Your task to perform on an android device: find which apps use the phone's location Image 0: 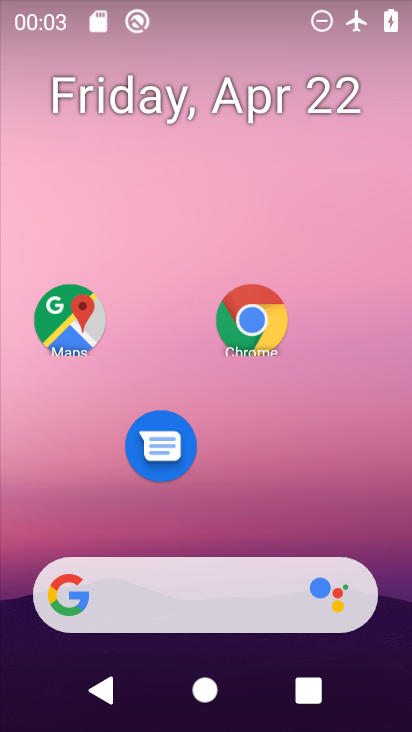
Step 0: drag from (218, 411) to (218, 140)
Your task to perform on an android device: find which apps use the phone's location Image 1: 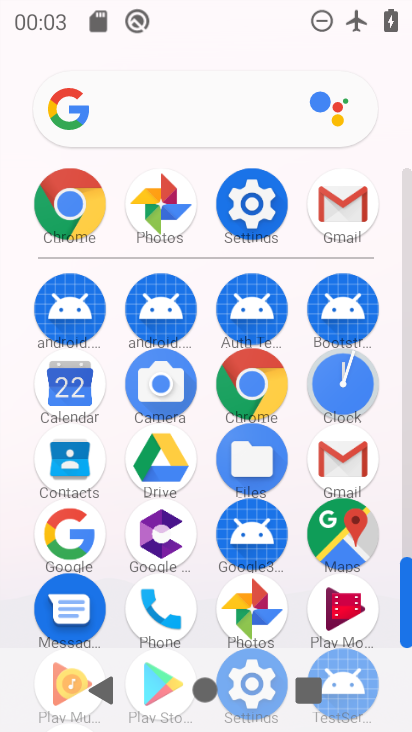
Step 1: click (249, 183)
Your task to perform on an android device: find which apps use the phone's location Image 2: 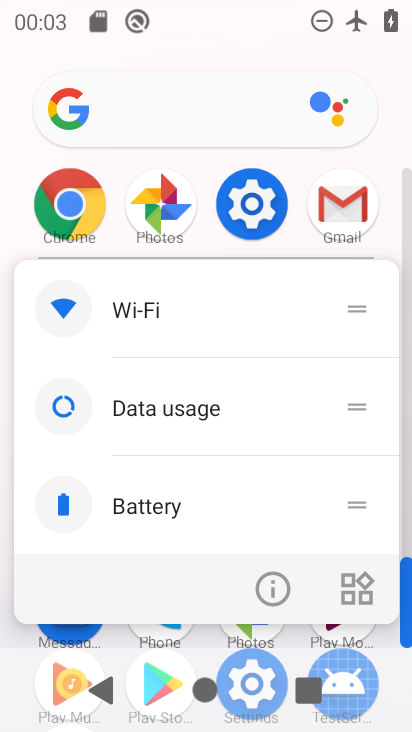
Step 2: click (270, 574)
Your task to perform on an android device: find which apps use the phone's location Image 3: 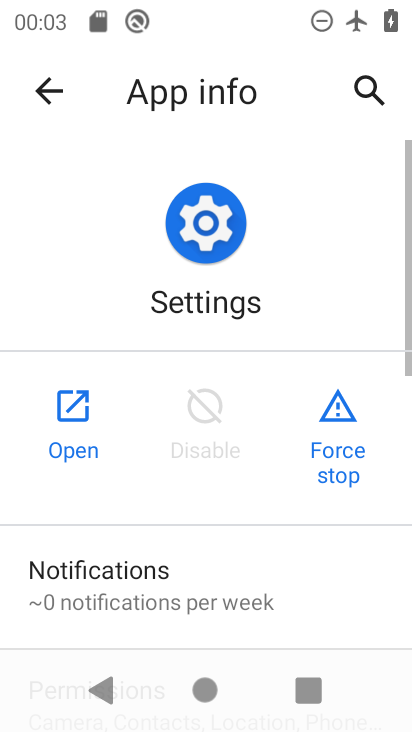
Step 3: click (63, 429)
Your task to perform on an android device: find which apps use the phone's location Image 4: 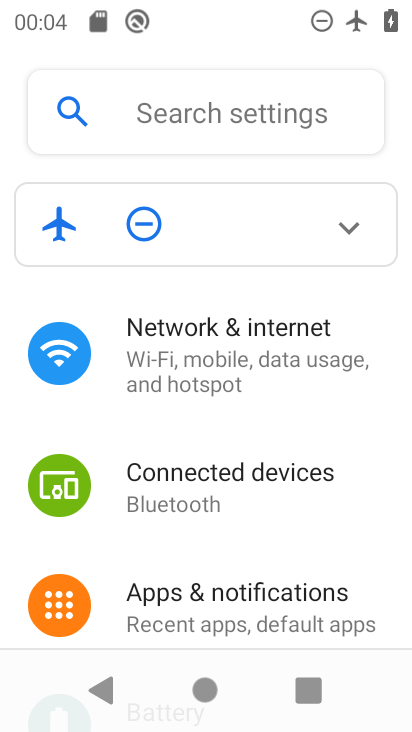
Step 4: drag from (230, 567) to (275, 26)
Your task to perform on an android device: find which apps use the phone's location Image 5: 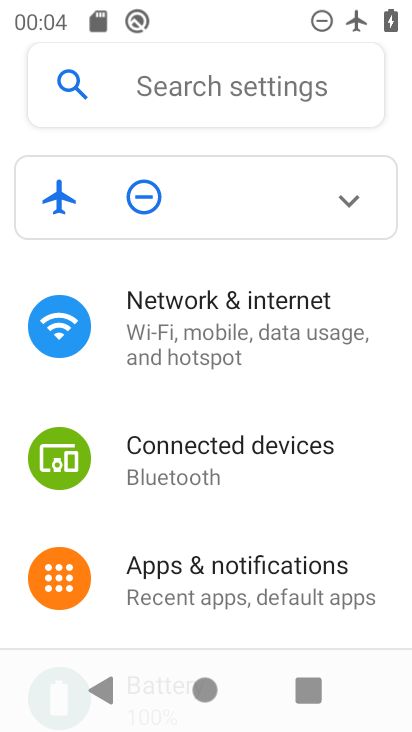
Step 5: drag from (266, 582) to (252, 225)
Your task to perform on an android device: find which apps use the phone's location Image 6: 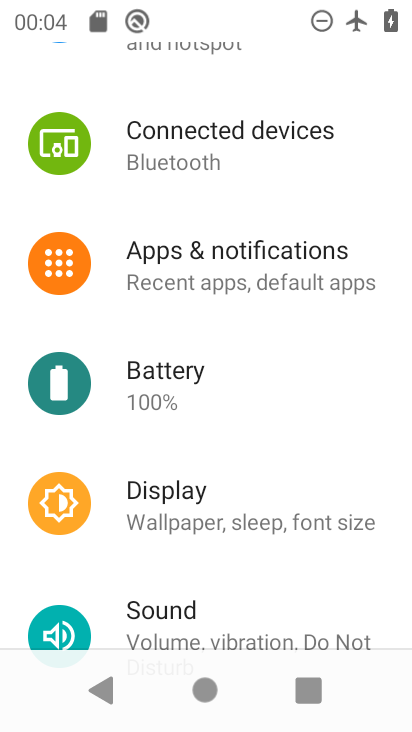
Step 6: drag from (237, 551) to (248, 182)
Your task to perform on an android device: find which apps use the phone's location Image 7: 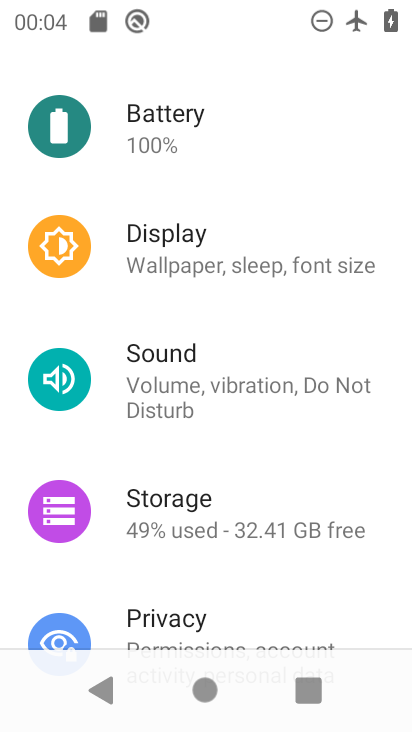
Step 7: drag from (196, 549) to (254, 210)
Your task to perform on an android device: find which apps use the phone's location Image 8: 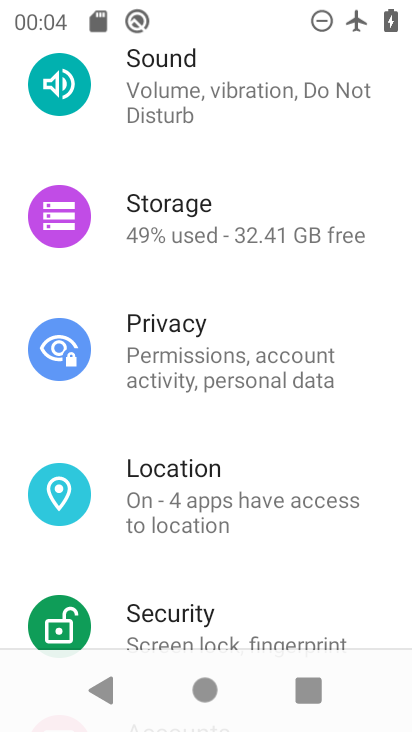
Step 8: drag from (257, 460) to (276, 187)
Your task to perform on an android device: find which apps use the phone's location Image 9: 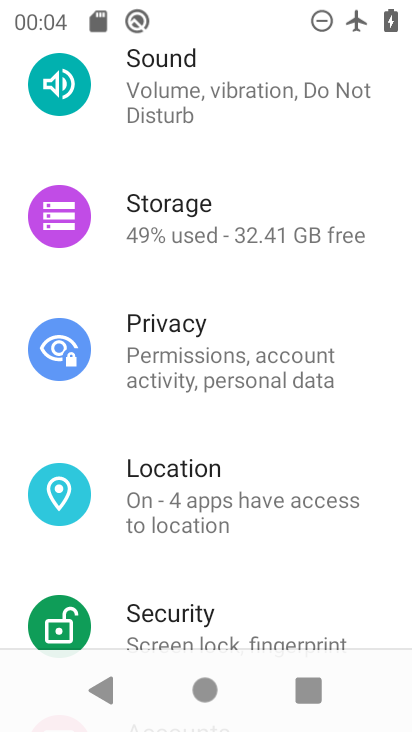
Step 9: click (202, 477)
Your task to perform on an android device: find which apps use the phone's location Image 10: 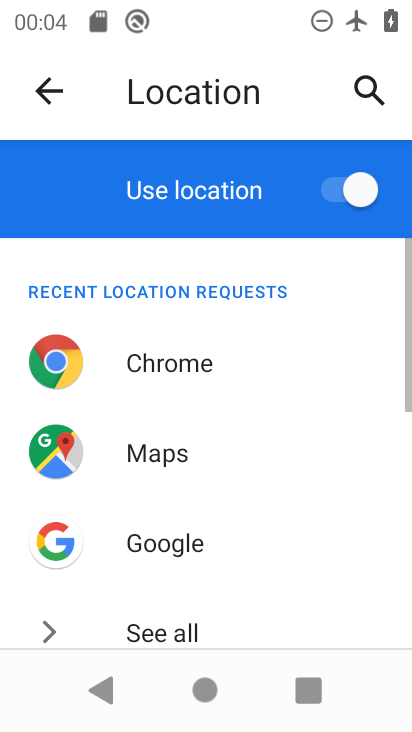
Step 10: drag from (237, 552) to (247, 158)
Your task to perform on an android device: find which apps use the phone's location Image 11: 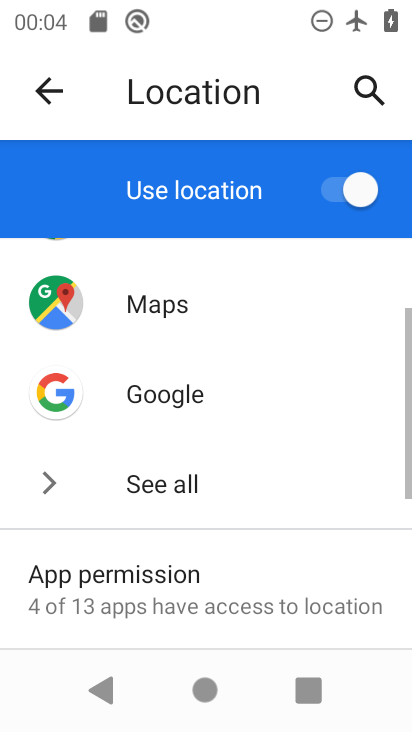
Step 11: drag from (233, 540) to (247, 238)
Your task to perform on an android device: find which apps use the phone's location Image 12: 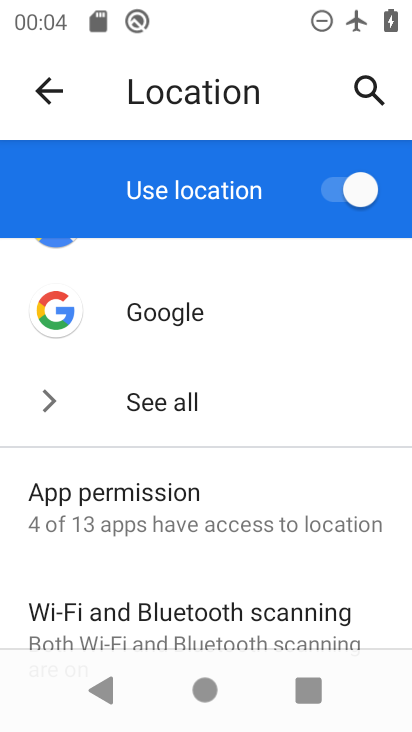
Step 12: drag from (246, 534) to (292, 290)
Your task to perform on an android device: find which apps use the phone's location Image 13: 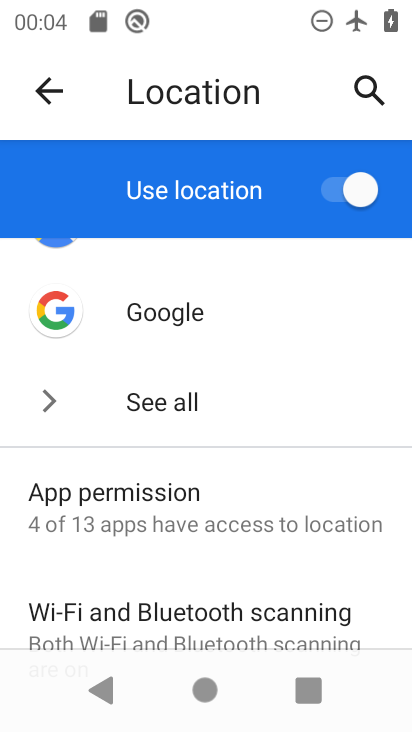
Step 13: drag from (184, 617) to (260, 132)
Your task to perform on an android device: find which apps use the phone's location Image 14: 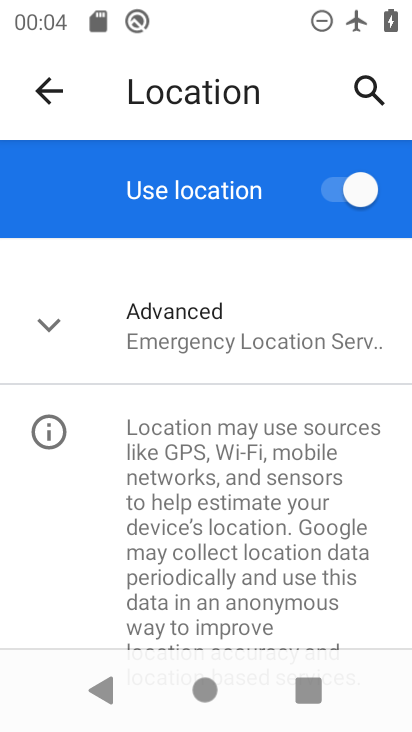
Step 14: click (155, 322)
Your task to perform on an android device: find which apps use the phone's location Image 15: 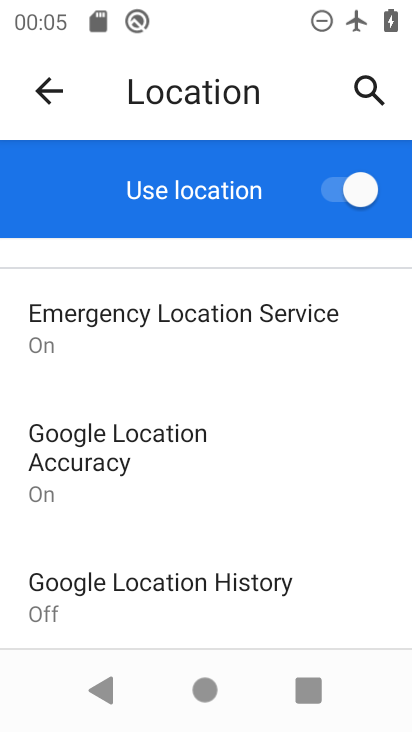
Step 15: drag from (209, 491) to (244, 294)
Your task to perform on an android device: find which apps use the phone's location Image 16: 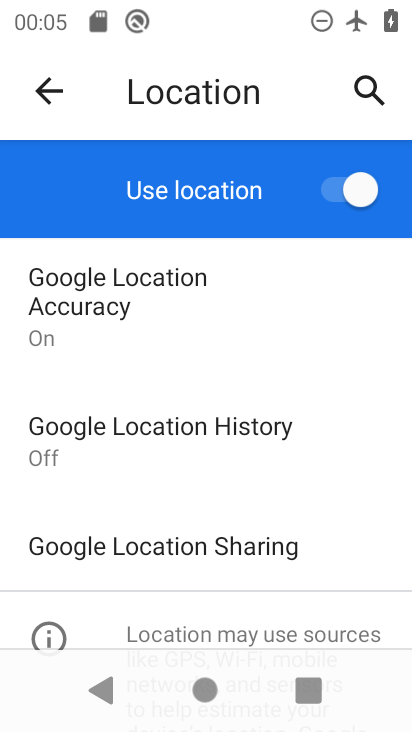
Step 16: drag from (227, 551) to (247, 346)
Your task to perform on an android device: find which apps use the phone's location Image 17: 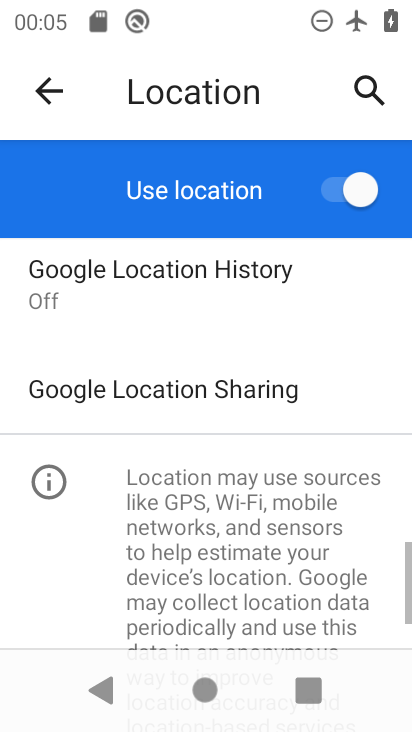
Step 17: drag from (201, 348) to (152, 685)
Your task to perform on an android device: find which apps use the phone's location Image 18: 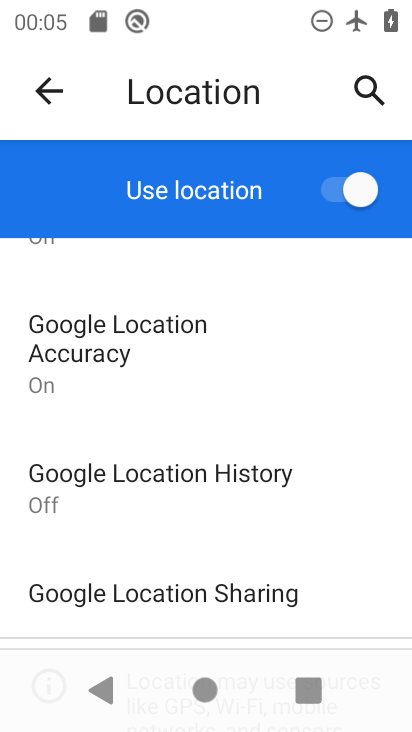
Step 18: drag from (170, 545) to (210, 292)
Your task to perform on an android device: find which apps use the phone's location Image 19: 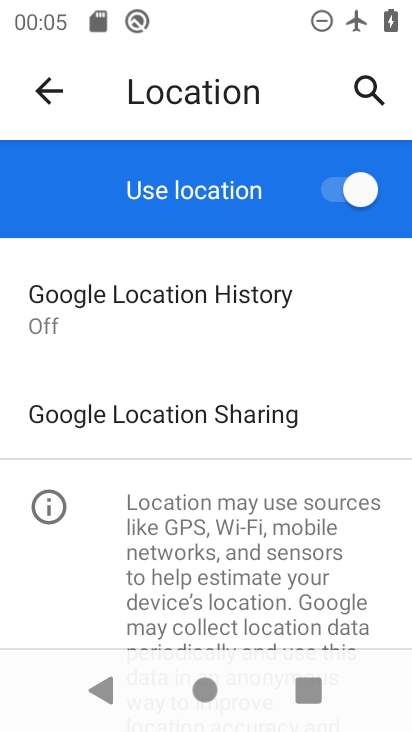
Step 19: drag from (154, 275) to (189, 528)
Your task to perform on an android device: find which apps use the phone's location Image 20: 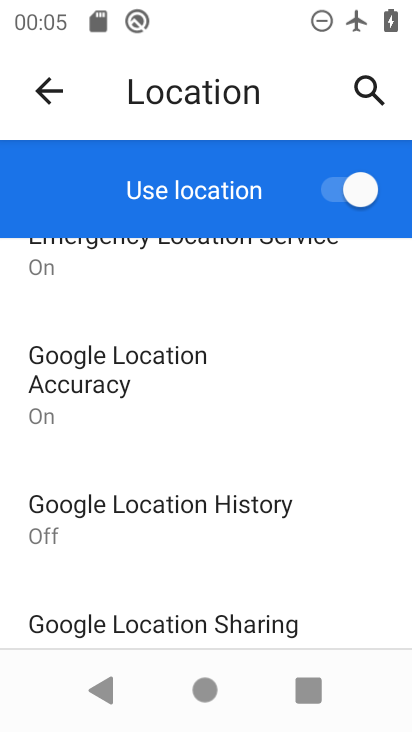
Step 20: drag from (146, 380) to (151, 551)
Your task to perform on an android device: find which apps use the phone's location Image 21: 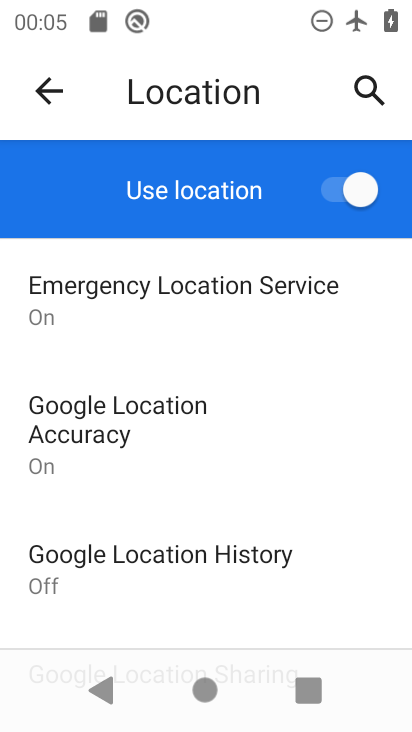
Step 21: drag from (209, 293) to (195, 722)
Your task to perform on an android device: find which apps use the phone's location Image 22: 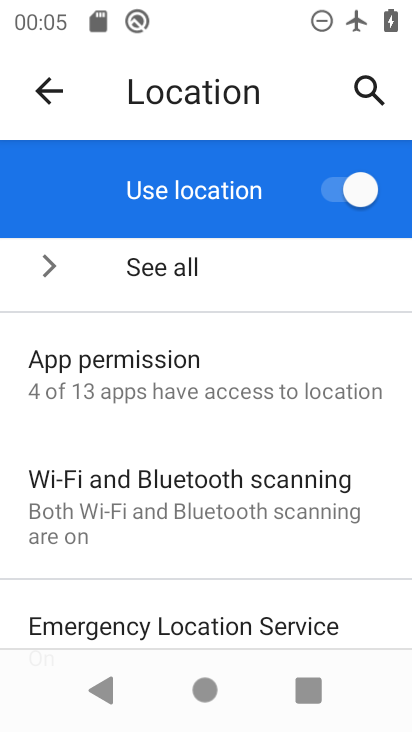
Step 22: click (129, 375)
Your task to perform on an android device: find which apps use the phone's location Image 23: 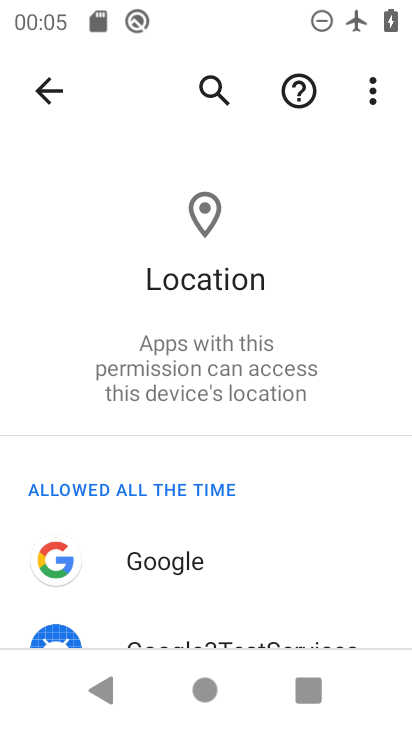
Step 23: task complete